Your task to perform on an android device: see tabs open on other devices in the chrome app Image 0: 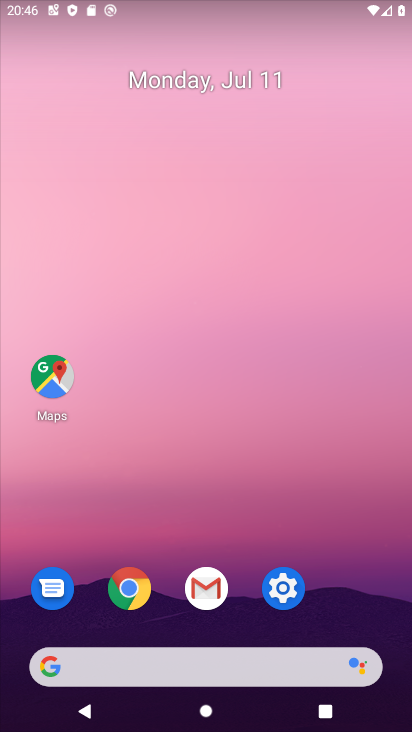
Step 0: drag from (265, 660) to (210, 243)
Your task to perform on an android device: see tabs open on other devices in the chrome app Image 1: 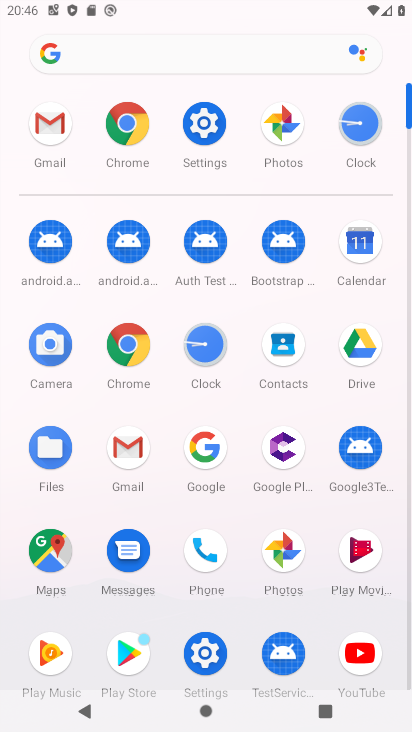
Step 1: click (117, 127)
Your task to perform on an android device: see tabs open on other devices in the chrome app Image 2: 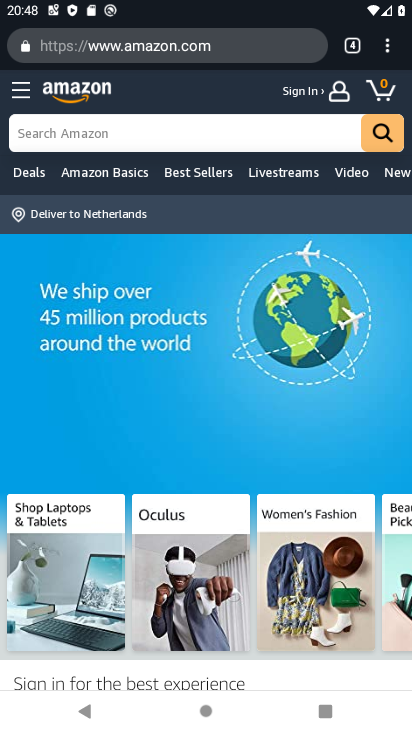
Step 2: task complete